Your task to perform on an android device: open the mobile data screen to see how much data has been used Image 0: 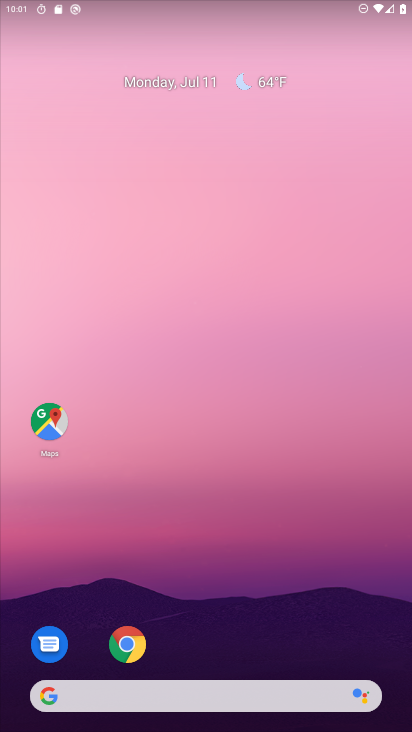
Step 0: drag from (318, 633) to (240, 121)
Your task to perform on an android device: open the mobile data screen to see how much data has been used Image 1: 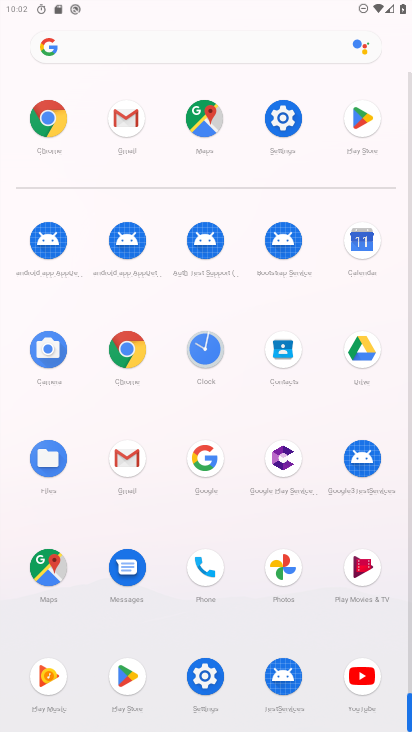
Step 1: click (276, 117)
Your task to perform on an android device: open the mobile data screen to see how much data has been used Image 2: 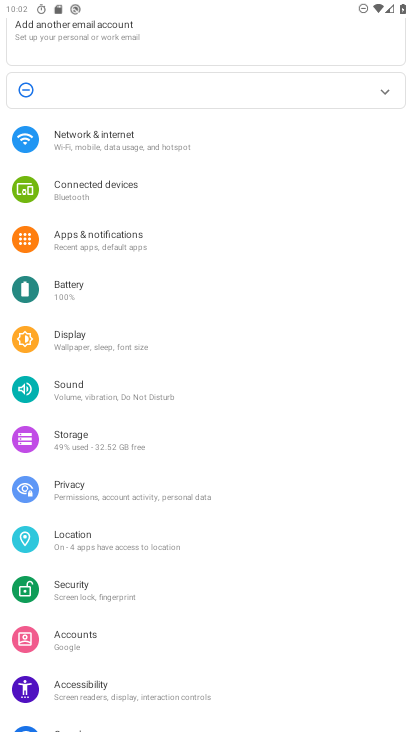
Step 2: click (125, 140)
Your task to perform on an android device: open the mobile data screen to see how much data has been used Image 3: 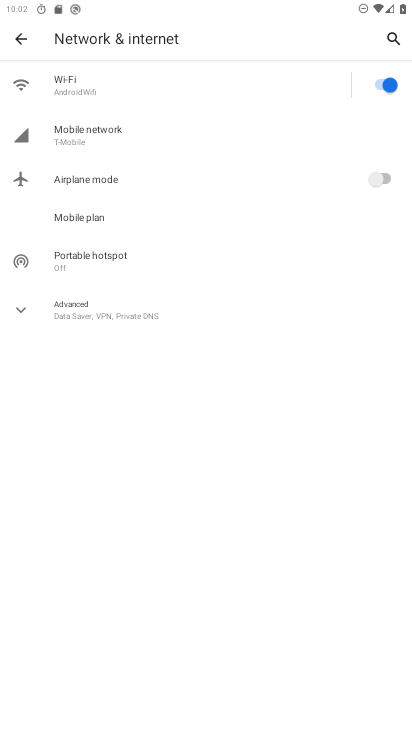
Step 3: click (125, 140)
Your task to perform on an android device: open the mobile data screen to see how much data has been used Image 4: 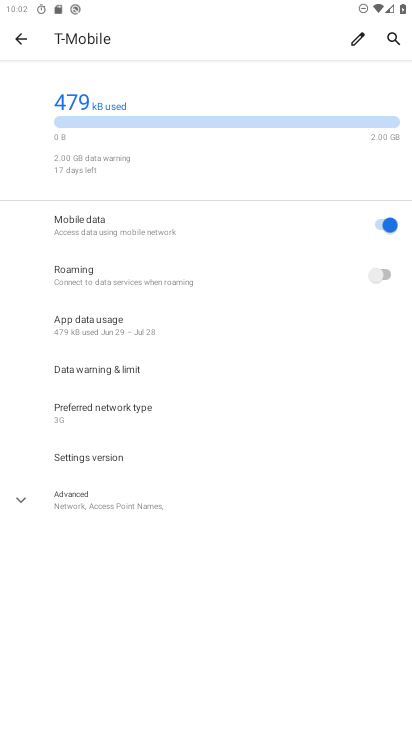
Step 4: click (233, 135)
Your task to perform on an android device: open the mobile data screen to see how much data has been used Image 5: 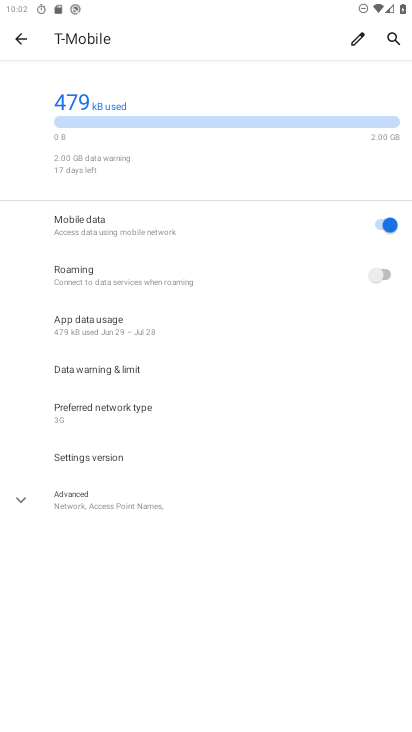
Step 5: task complete